Your task to perform on an android device: Open display settings Image 0: 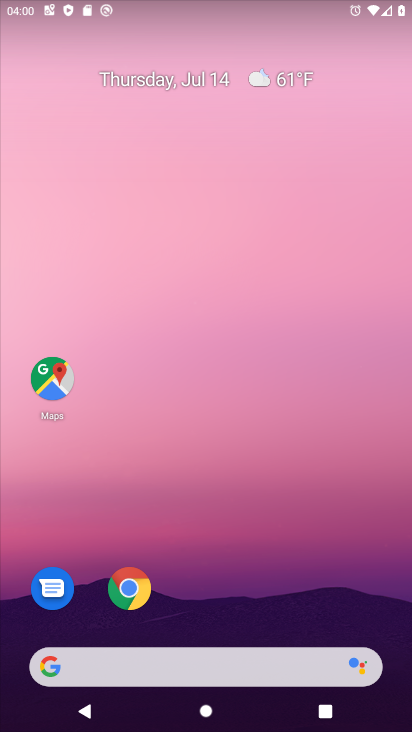
Step 0: press home button
Your task to perform on an android device: Open display settings Image 1: 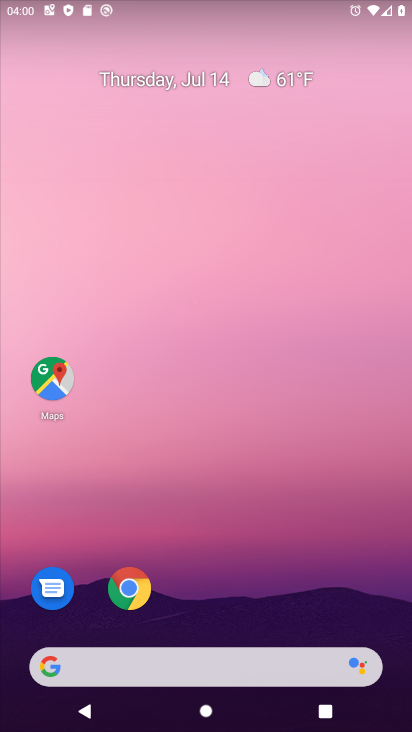
Step 1: drag from (278, 636) to (256, 167)
Your task to perform on an android device: Open display settings Image 2: 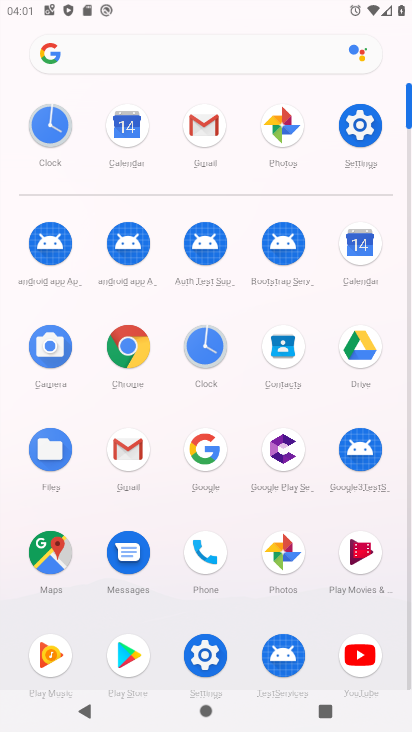
Step 2: click (365, 132)
Your task to perform on an android device: Open display settings Image 3: 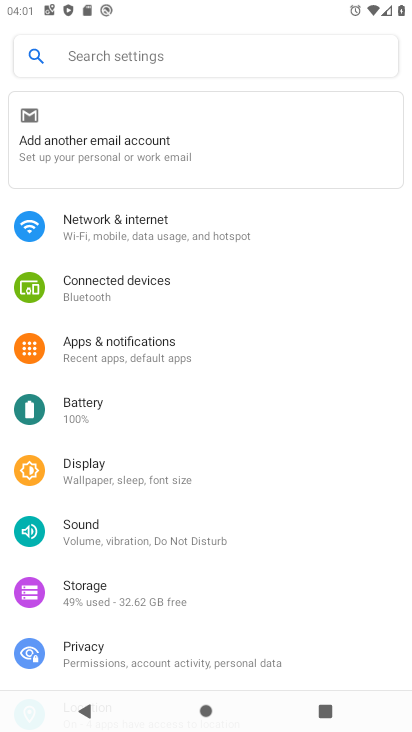
Step 3: click (106, 482)
Your task to perform on an android device: Open display settings Image 4: 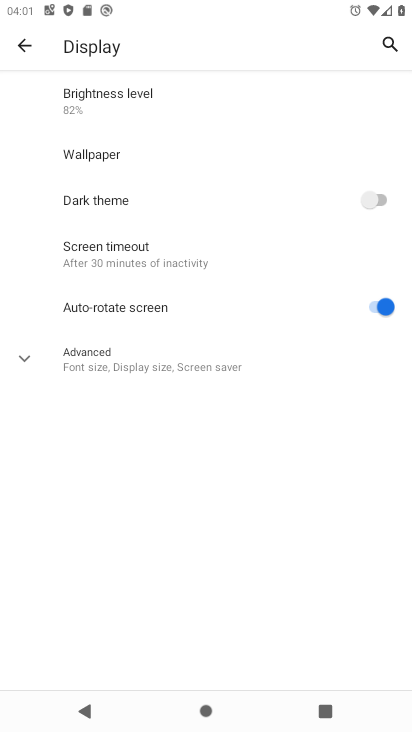
Step 4: task complete